Your task to perform on an android device: Search for pizza restaurants on Maps Image 0: 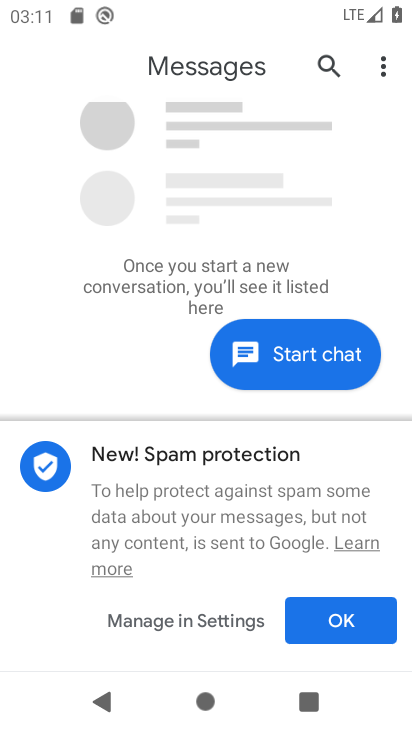
Step 0: press home button
Your task to perform on an android device: Search for pizza restaurants on Maps Image 1: 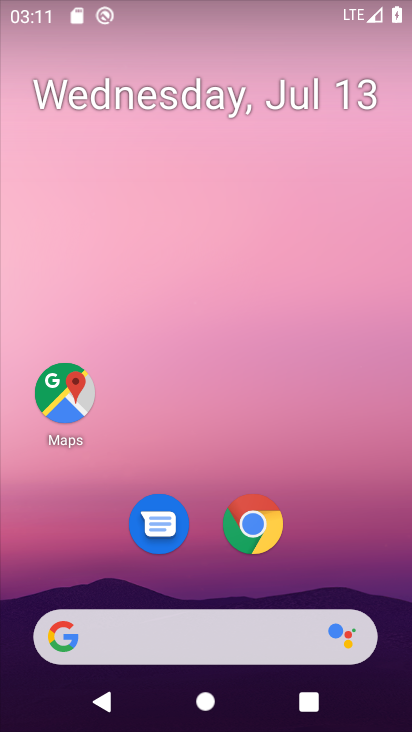
Step 1: click (54, 380)
Your task to perform on an android device: Search for pizza restaurants on Maps Image 2: 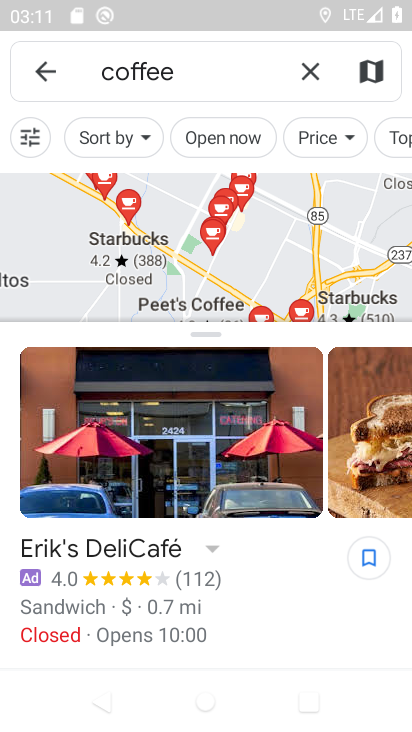
Step 2: click (309, 67)
Your task to perform on an android device: Search for pizza restaurants on Maps Image 3: 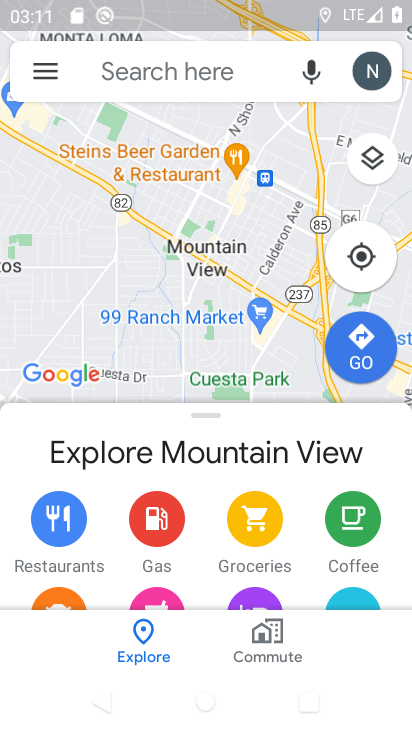
Step 3: click (160, 62)
Your task to perform on an android device: Search for pizza restaurants on Maps Image 4: 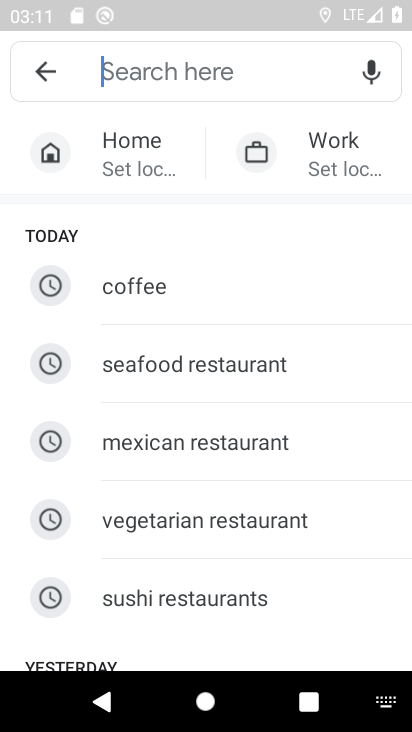
Step 4: drag from (305, 510) to (309, 202)
Your task to perform on an android device: Search for pizza restaurants on Maps Image 5: 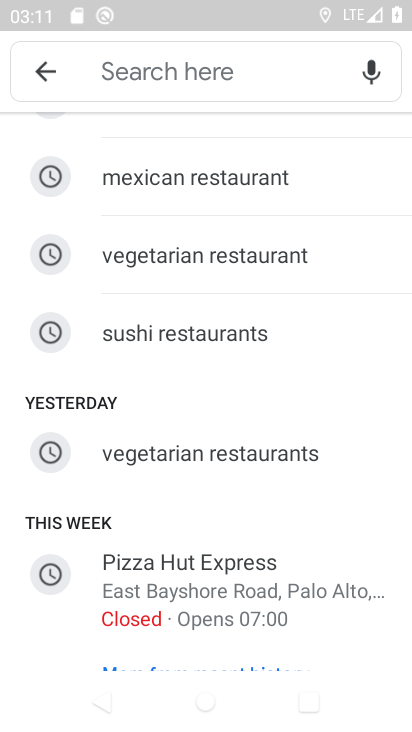
Step 5: drag from (291, 297) to (326, 616)
Your task to perform on an android device: Search for pizza restaurants on Maps Image 6: 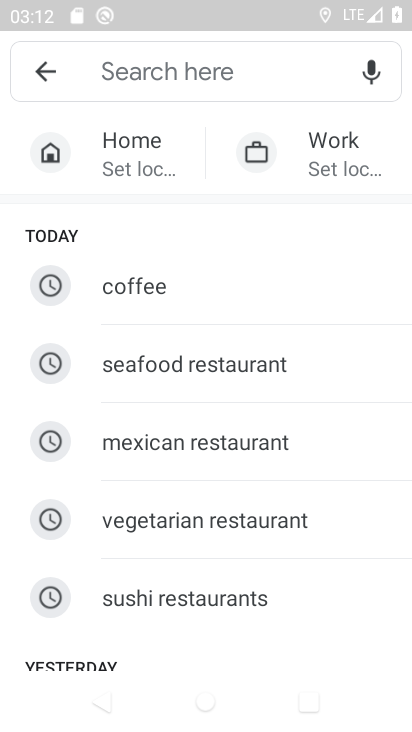
Step 6: type "Pizza"
Your task to perform on an android device: Search for pizza restaurants on Maps Image 7: 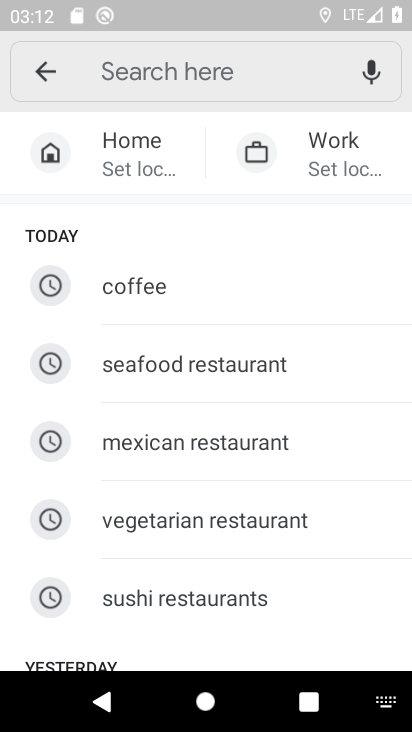
Step 7: click (199, 66)
Your task to perform on an android device: Search for pizza restaurants on Maps Image 8: 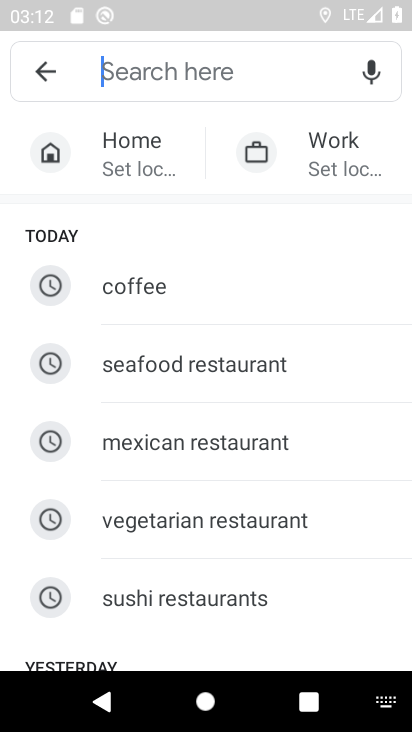
Step 8: type "Pizza"
Your task to perform on an android device: Search for pizza restaurants on Maps Image 9: 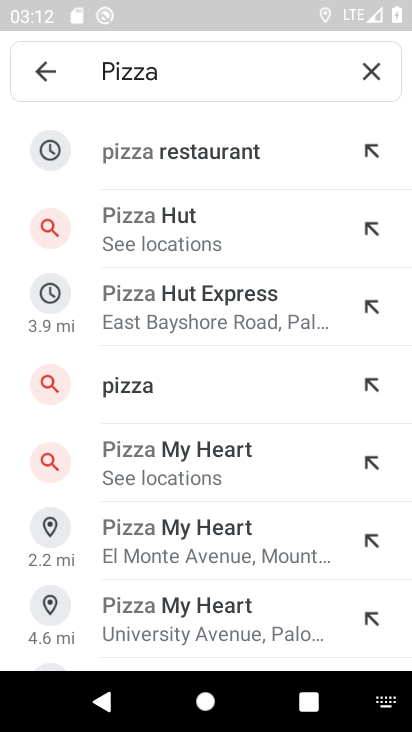
Step 9: click (227, 146)
Your task to perform on an android device: Search for pizza restaurants on Maps Image 10: 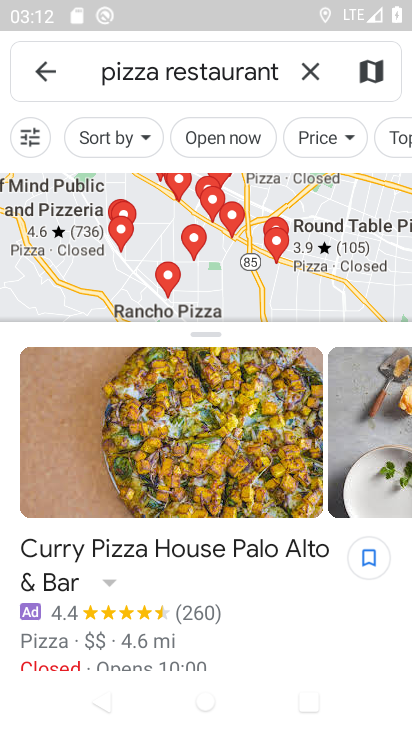
Step 10: task complete